Your task to perform on an android device: search for starred emails in the gmail app Image 0: 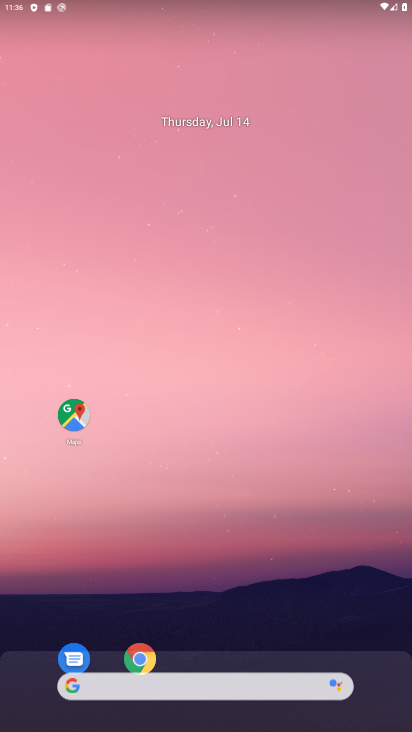
Step 0: drag from (276, 590) to (337, 5)
Your task to perform on an android device: search for starred emails in the gmail app Image 1: 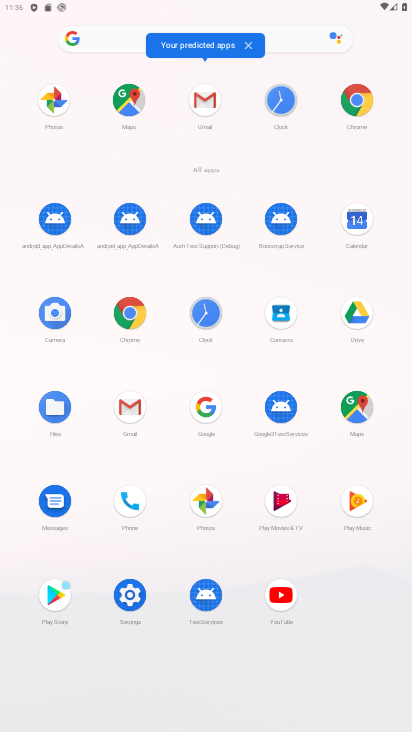
Step 1: click (202, 109)
Your task to perform on an android device: search for starred emails in the gmail app Image 2: 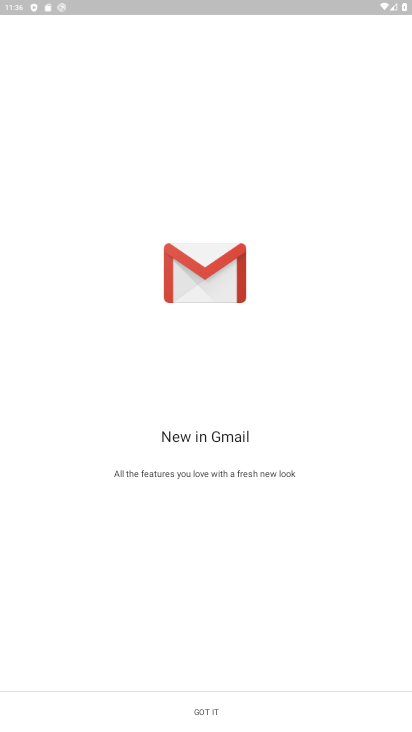
Step 2: click (230, 702)
Your task to perform on an android device: search for starred emails in the gmail app Image 3: 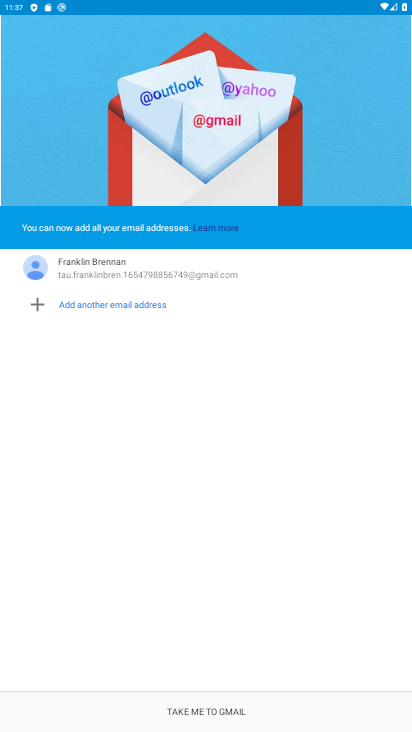
Step 3: click (265, 718)
Your task to perform on an android device: search for starred emails in the gmail app Image 4: 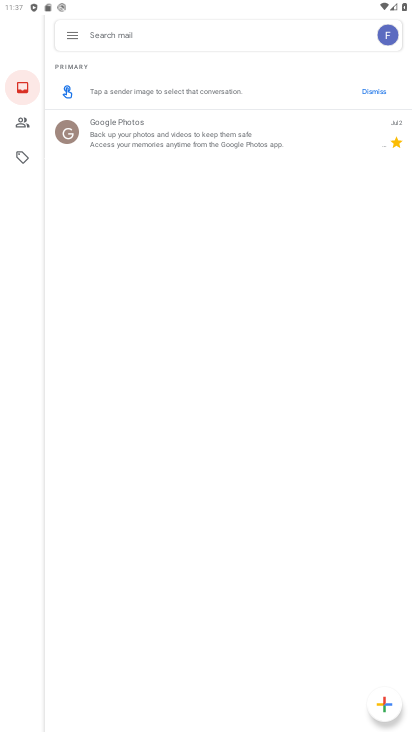
Step 4: click (73, 27)
Your task to perform on an android device: search for starred emails in the gmail app Image 5: 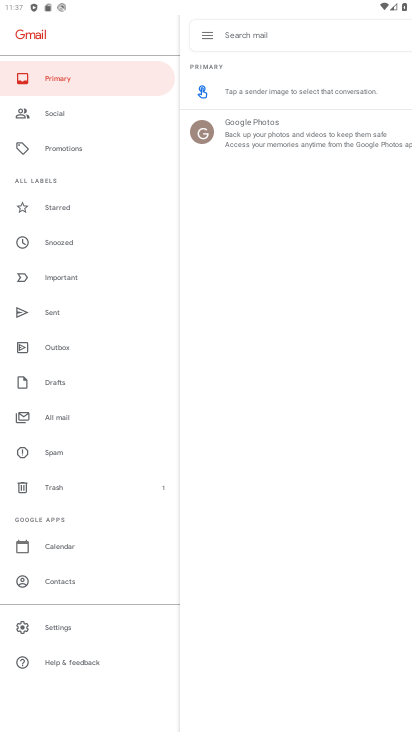
Step 5: click (47, 204)
Your task to perform on an android device: search for starred emails in the gmail app Image 6: 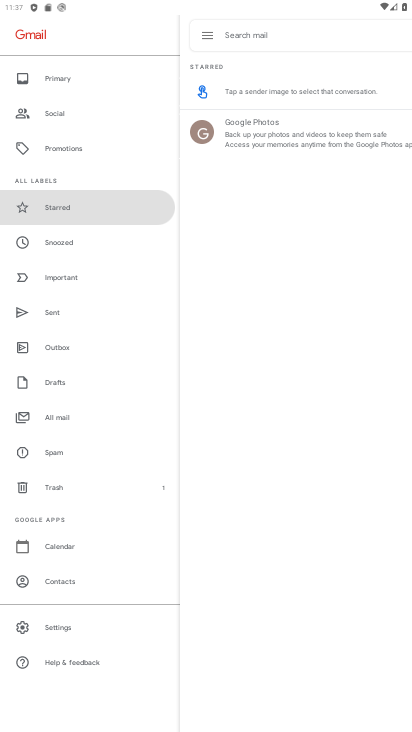
Step 6: task complete